Your task to perform on an android device: toggle airplane mode Image 0: 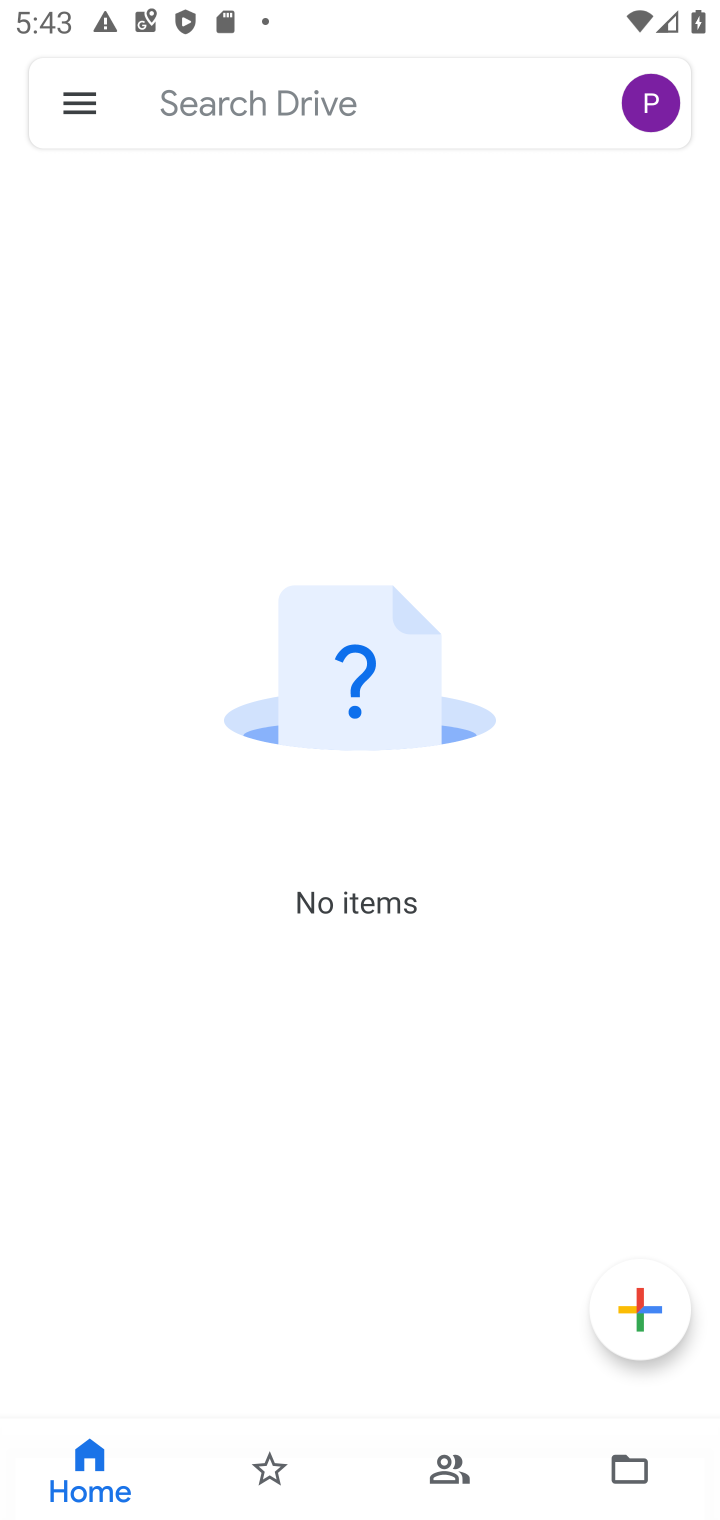
Step 0: press home button
Your task to perform on an android device: toggle airplane mode Image 1: 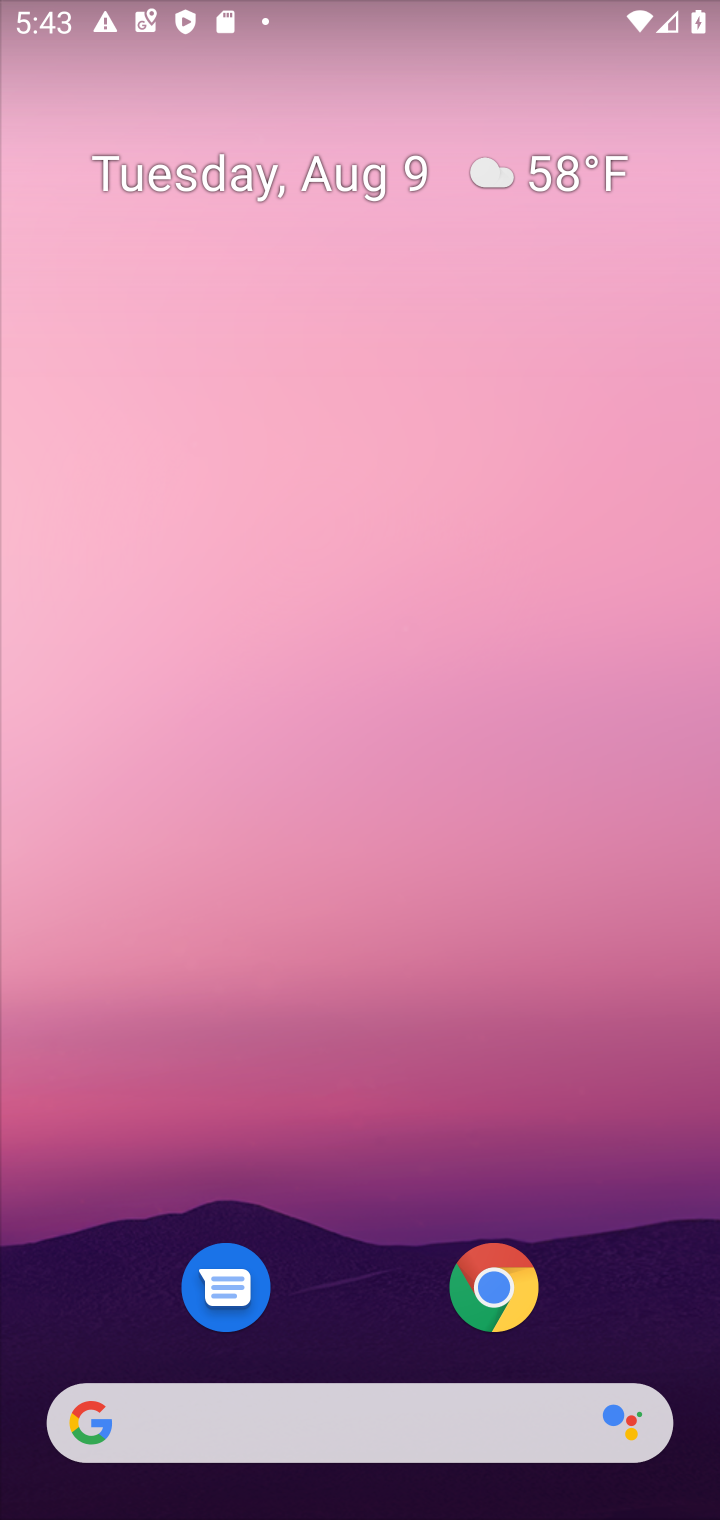
Step 1: drag from (387, 1159) to (441, 512)
Your task to perform on an android device: toggle airplane mode Image 2: 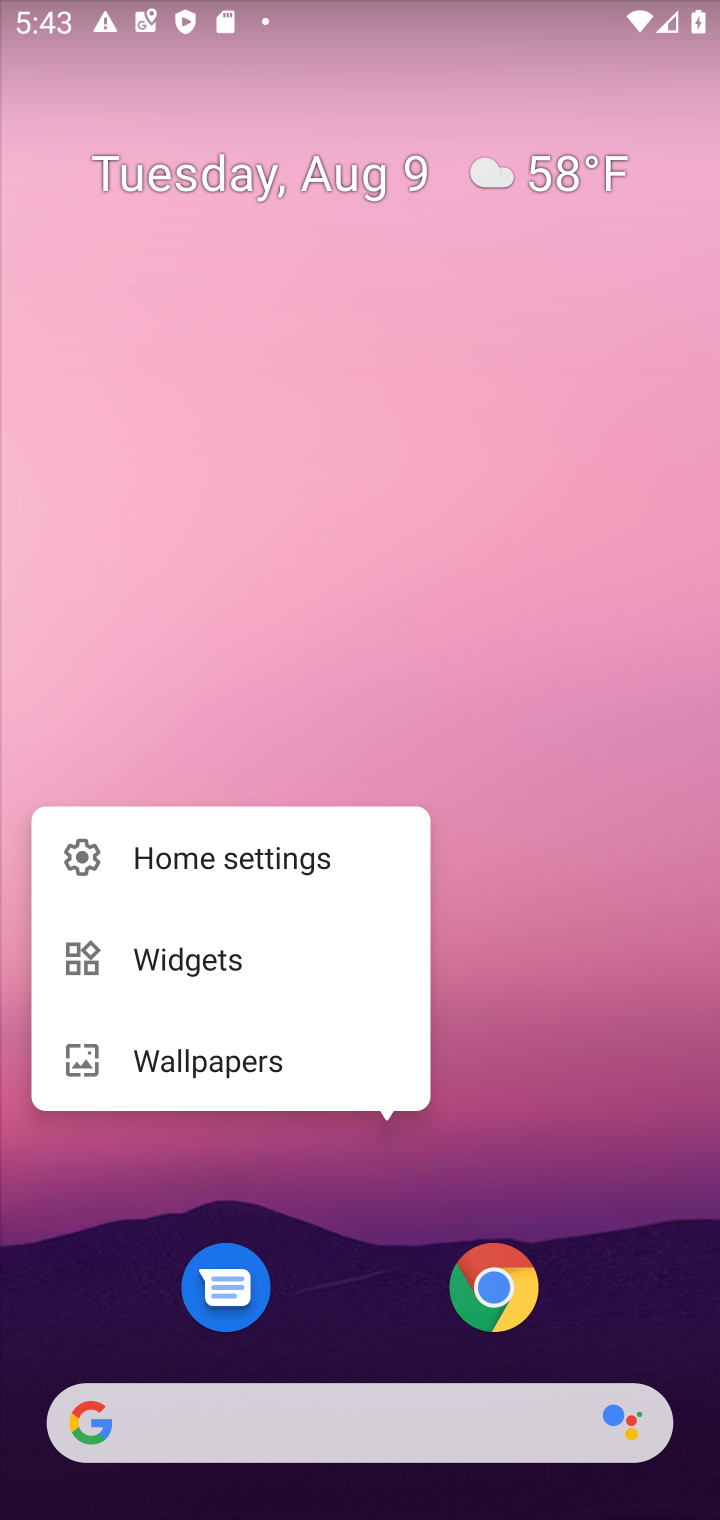
Step 2: click (441, 512)
Your task to perform on an android device: toggle airplane mode Image 3: 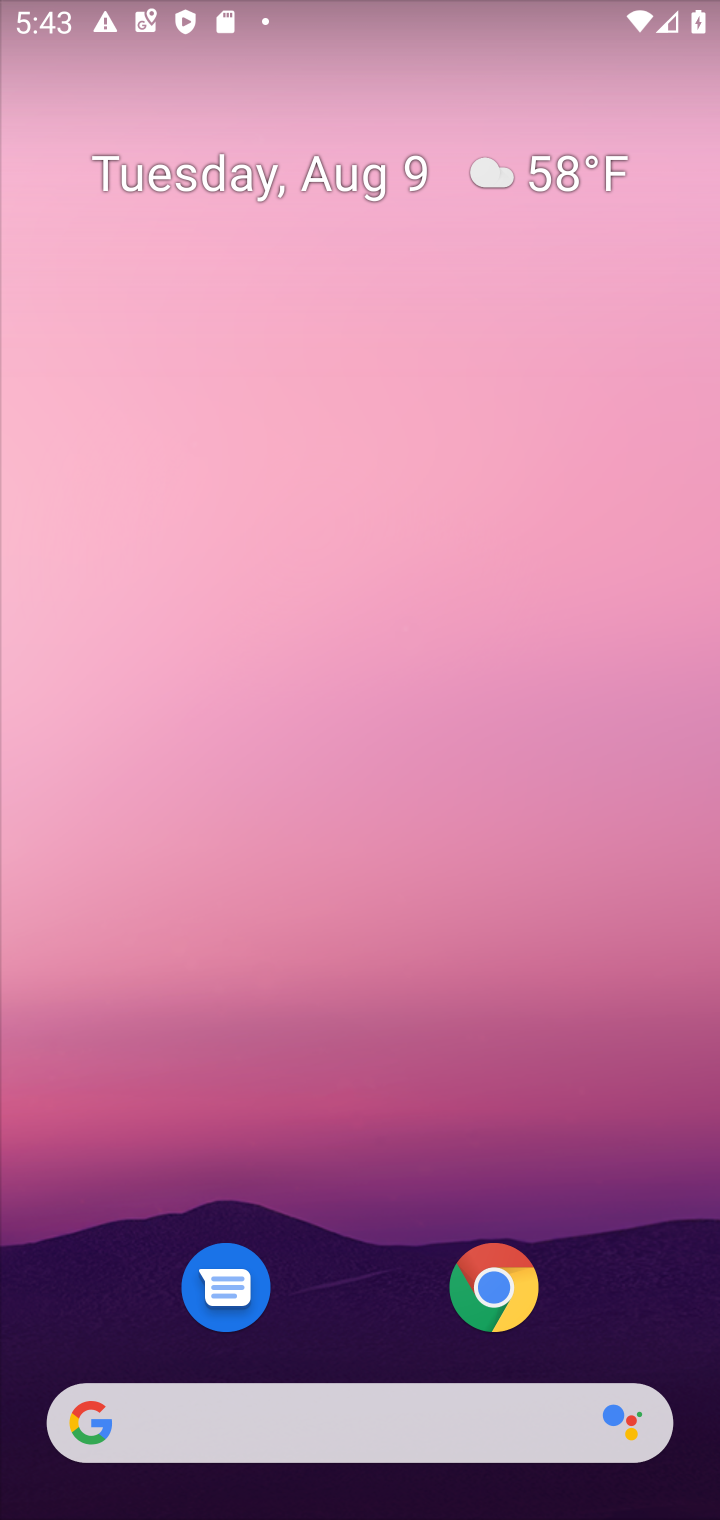
Step 3: click (441, 512)
Your task to perform on an android device: toggle airplane mode Image 4: 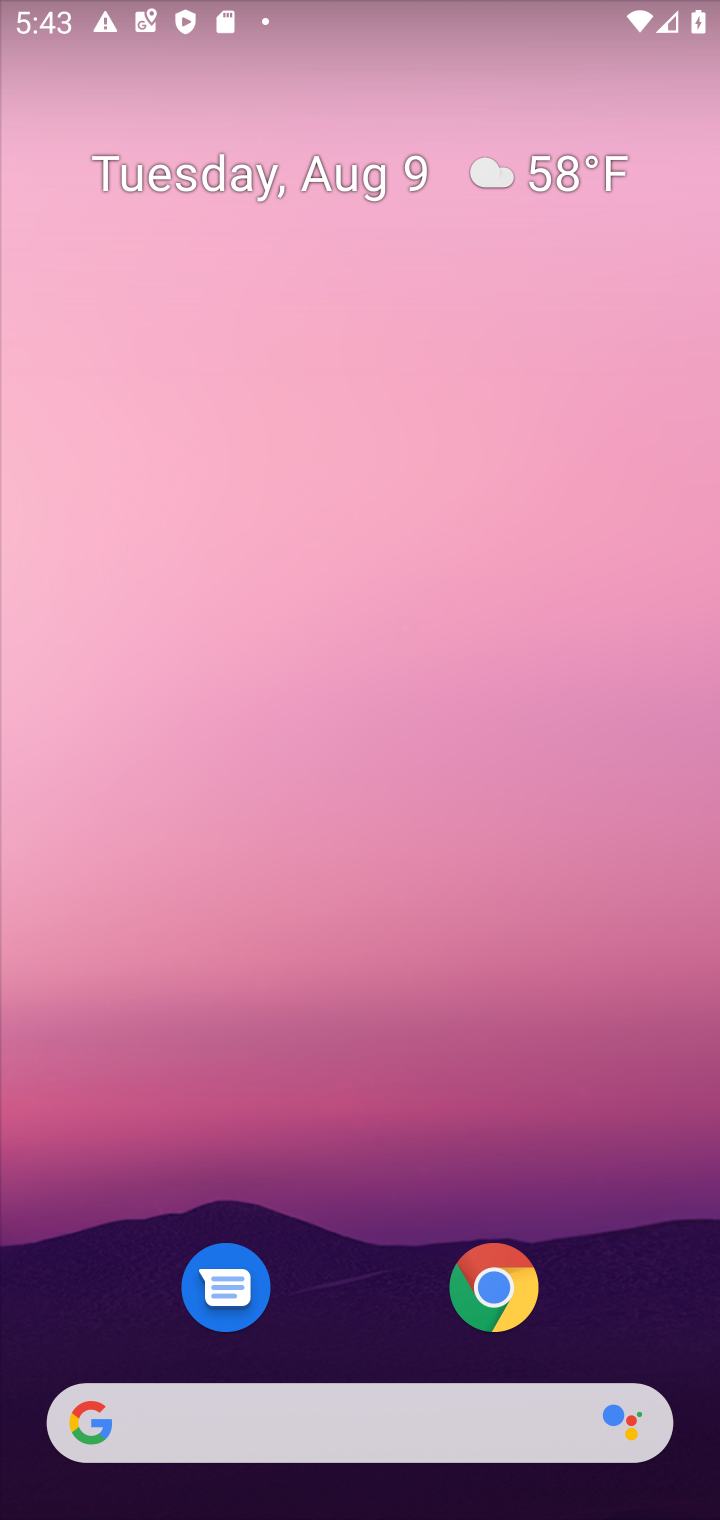
Step 4: task complete